Your task to perform on an android device: Show me productivity apps on the Play Store Image 0: 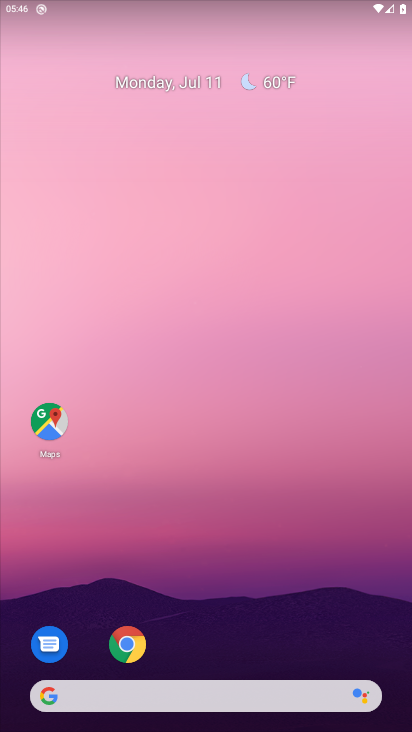
Step 0: drag from (174, 653) to (207, 370)
Your task to perform on an android device: Show me productivity apps on the Play Store Image 1: 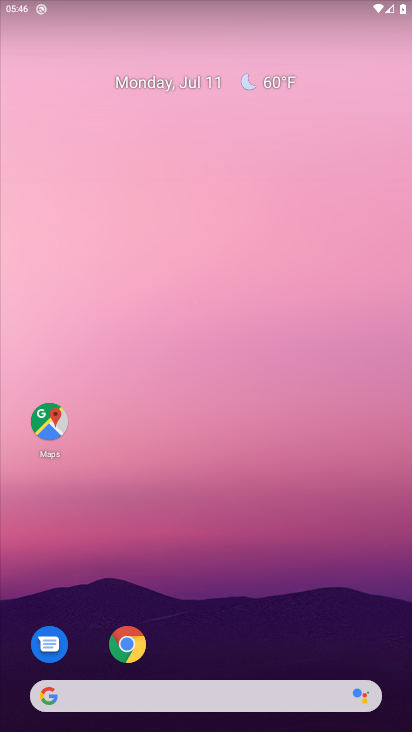
Step 1: drag from (215, 635) to (215, 327)
Your task to perform on an android device: Show me productivity apps on the Play Store Image 2: 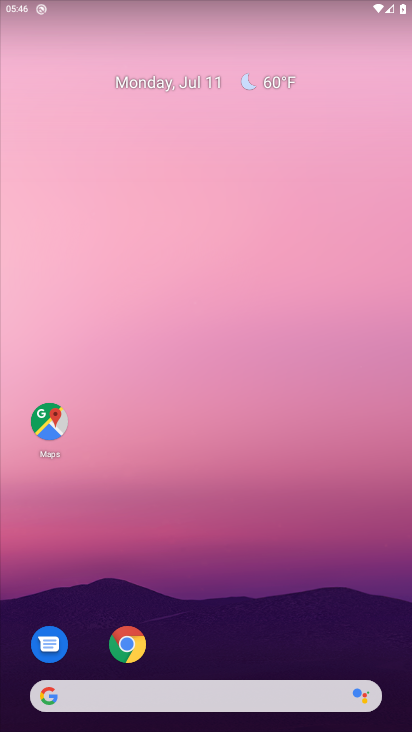
Step 2: drag from (209, 649) to (218, 408)
Your task to perform on an android device: Show me productivity apps on the Play Store Image 3: 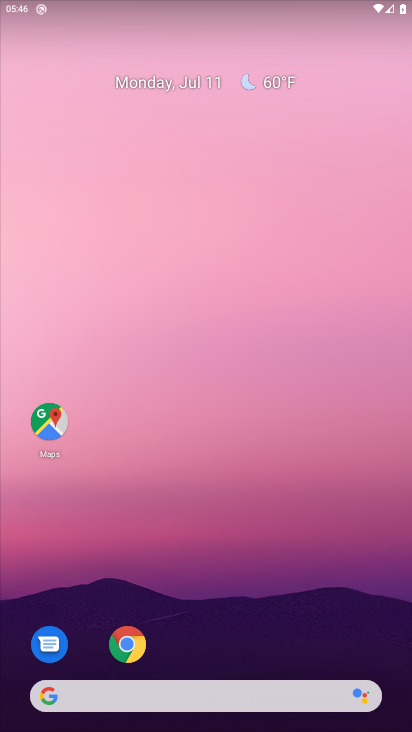
Step 3: drag from (142, 673) to (174, 250)
Your task to perform on an android device: Show me productivity apps on the Play Store Image 4: 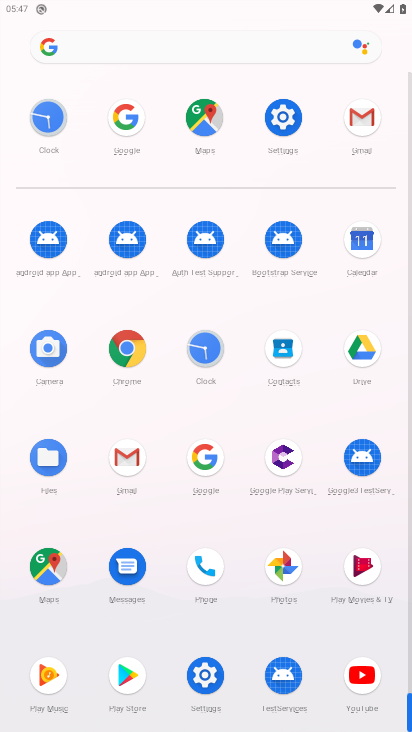
Step 4: click (124, 674)
Your task to perform on an android device: Show me productivity apps on the Play Store Image 5: 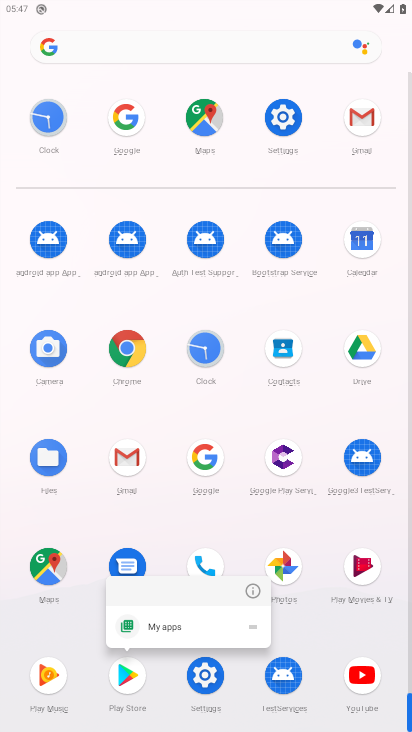
Step 5: click (123, 678)
Your task to perform on an android device: Show me productivity apps on the Play Store Image 6: 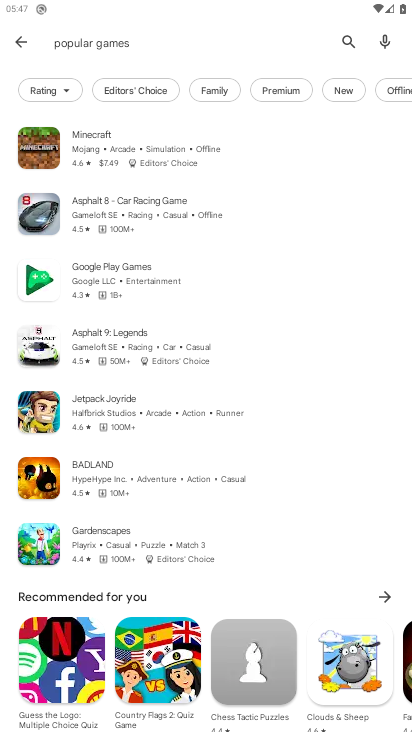
Step 6: click (214, 43)
Your task to perform on an android device: Show me productivity apps on the Play Store Image 7: 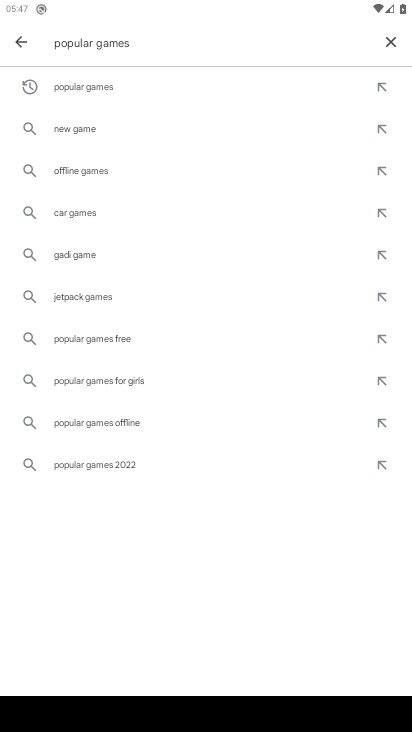
Step 7: click (393, 46)
Your task to perform on an android device: Show me productivity apps on the Play Store Image 8: 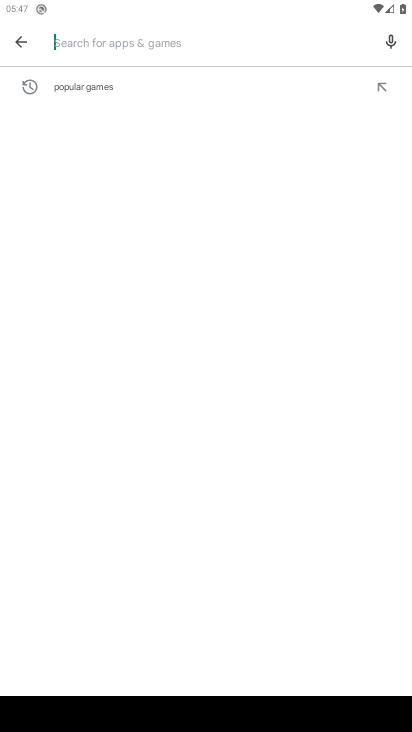
Step 8: click (23, 44)
Your task to perform on an android device: Show me productivity apps on the Play Store Image 9: 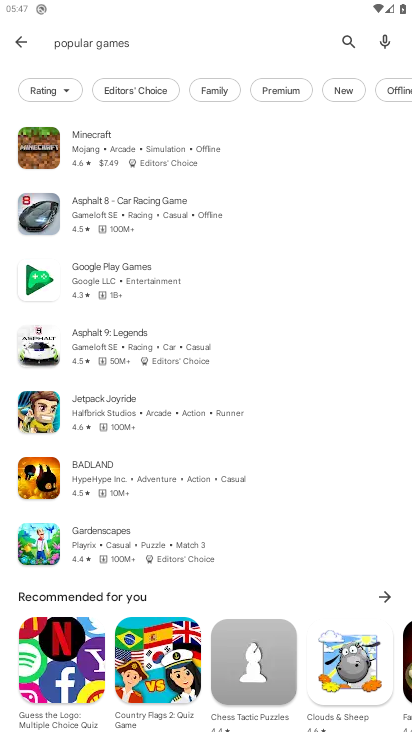
Step 9: drag from (127, 547) to (128, 226)
Your task to perform on an android device: Show me productivity apps on the Play Store Image 10: 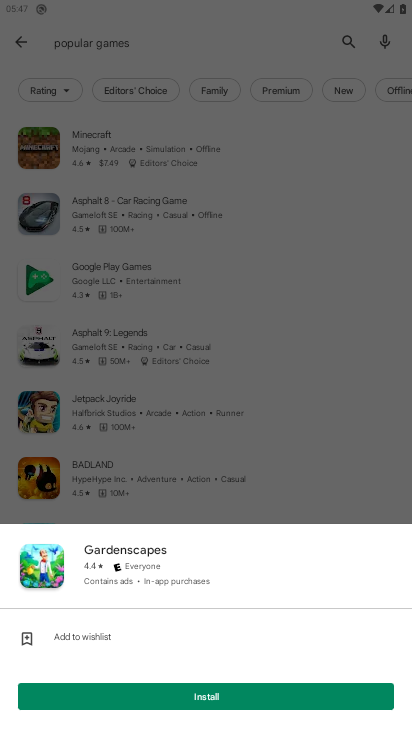
Step 10: click (21, 44)
Your task to perform on an android device: Show me productivity apps on the Play Store Image 11: 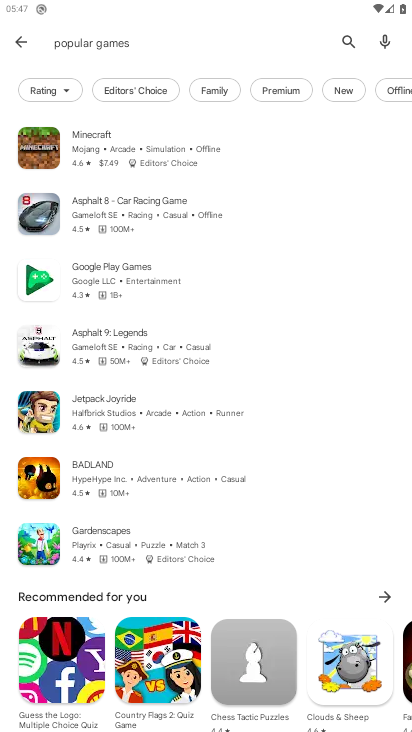
Step 11: click (17, 39)
Your task to perform on an android device: Show me productivity apps on the Play Store Image 12: 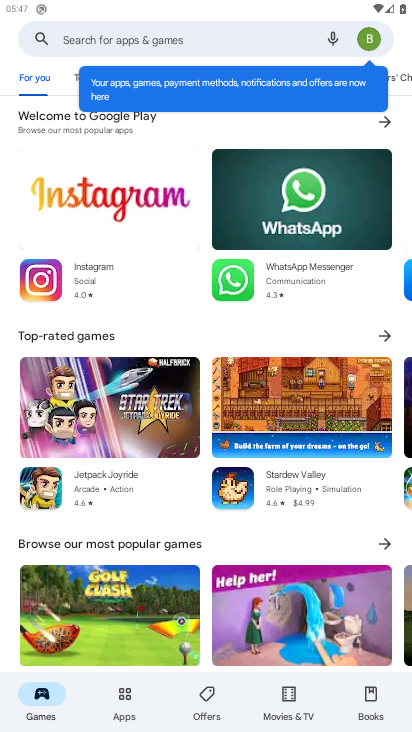
Step 12: click (119, 700)
Your task to perform on an android device: Show me productivity apps on the Play Store Image 13: 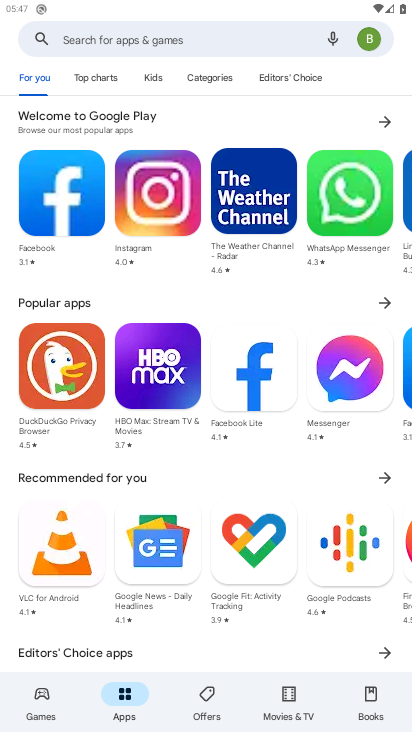
Step 13: task complete